Your task to perform on an android device: toggle notification dots Image 0: 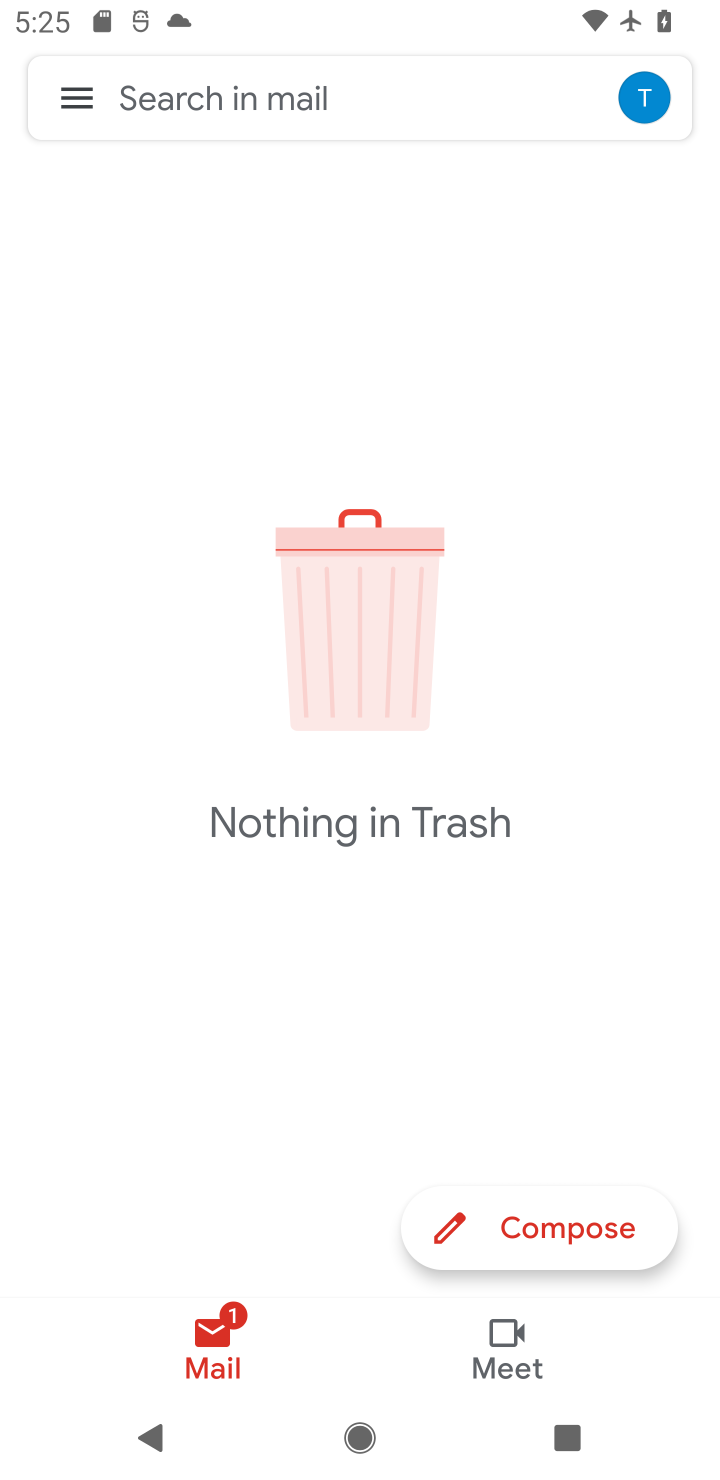
Step 0: press home button
Your task to perform on an android device: toggle notification dots Image 1: 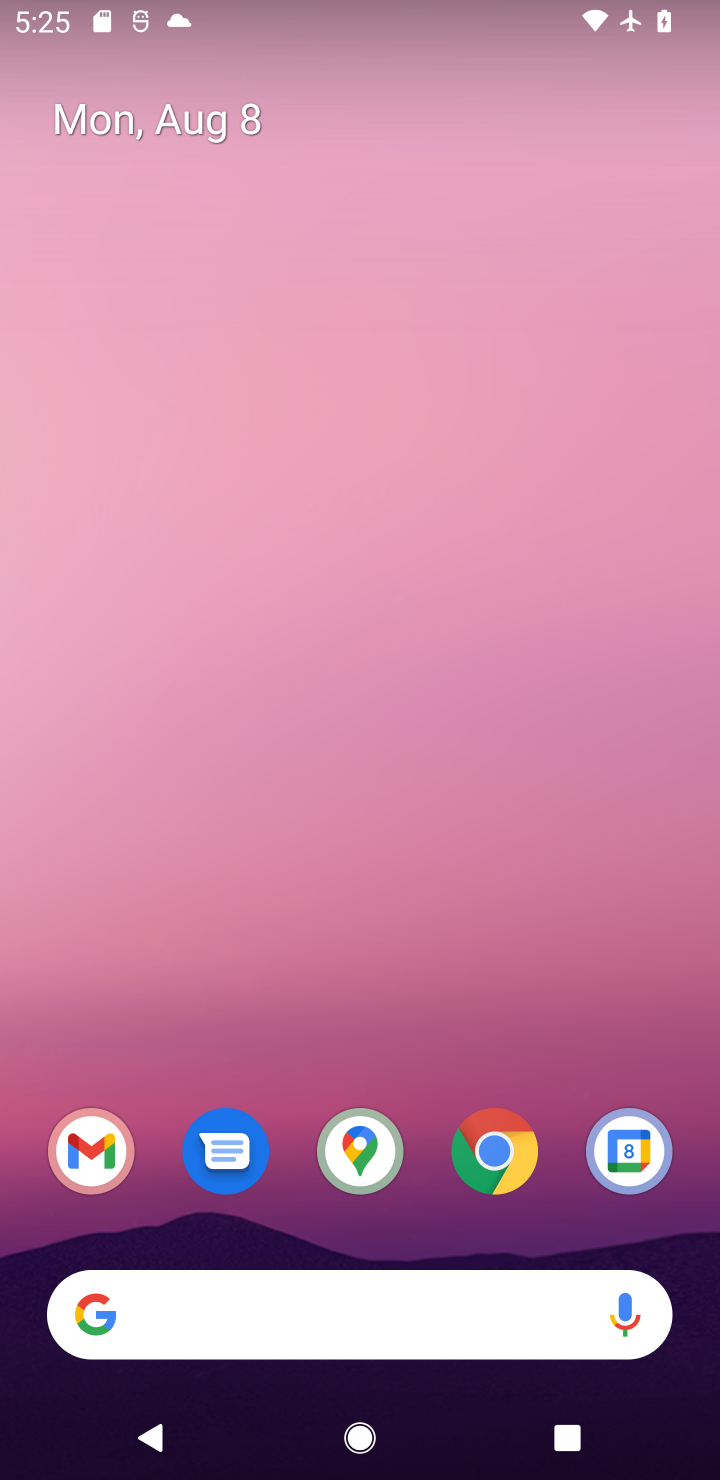
Step 1: drag from (326, 1056) to (342, 185)
Your task to perform on an android device: toggle notification dots Image 2: 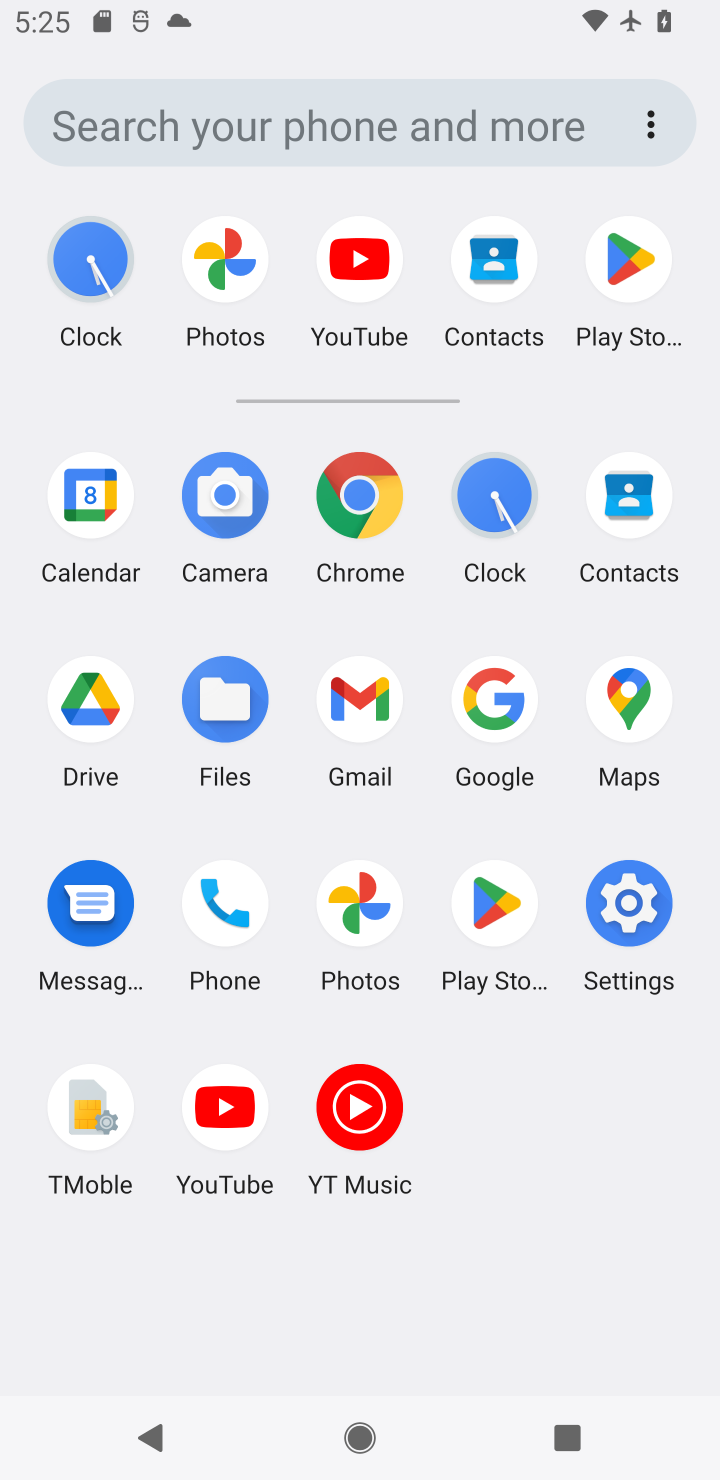
Step 2: click (602, 898)
Your task to perform on an android device: toggle notification dots Image 3: 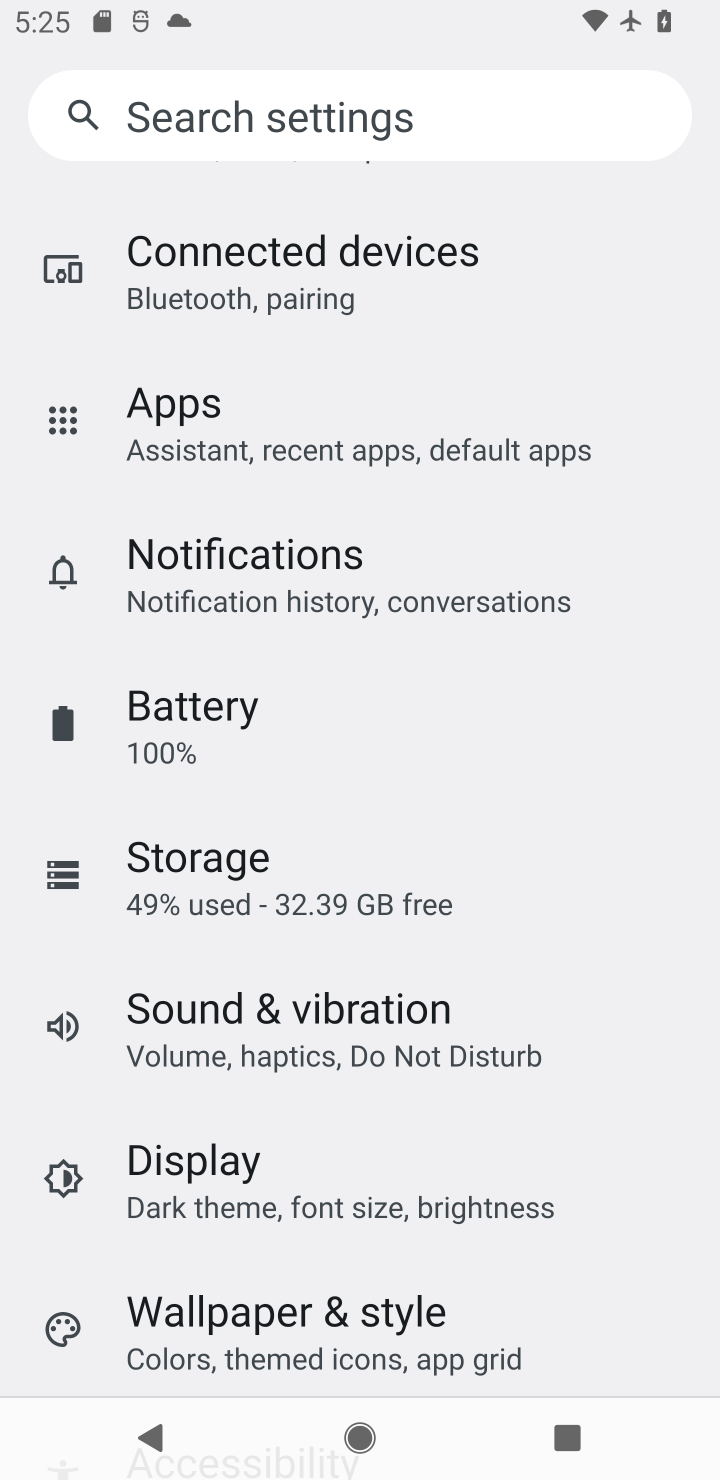
Step 3: click (252, 602)
Your task to perform on an android device: toggle notification dots Image 4: 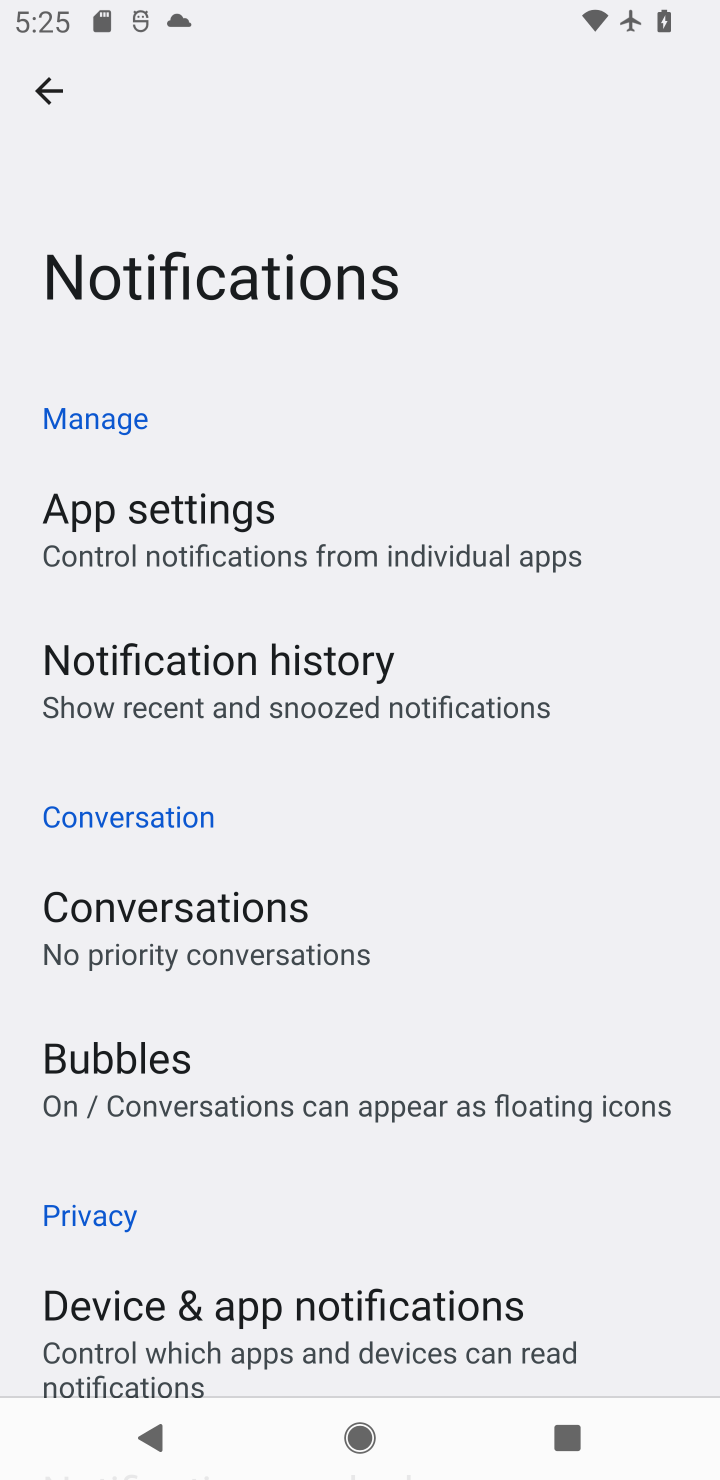
Step 4: drag from (444, 1147) to (442, 504)
Your task to perform on an android device: toggle notification dots Image 5: 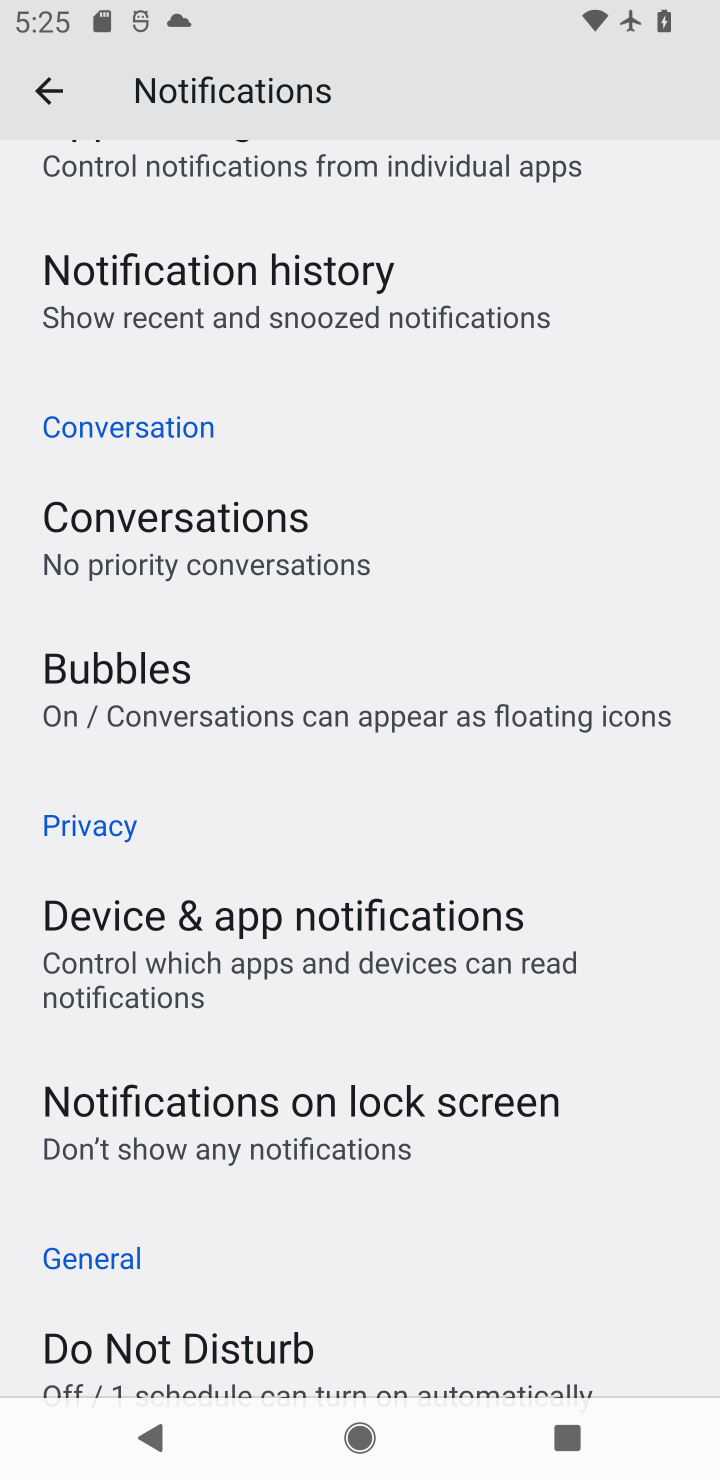
Step 5: drag from (406, 1050) to (425, 290)
Your task to perform on an android device: toggle notification dots Image 6: 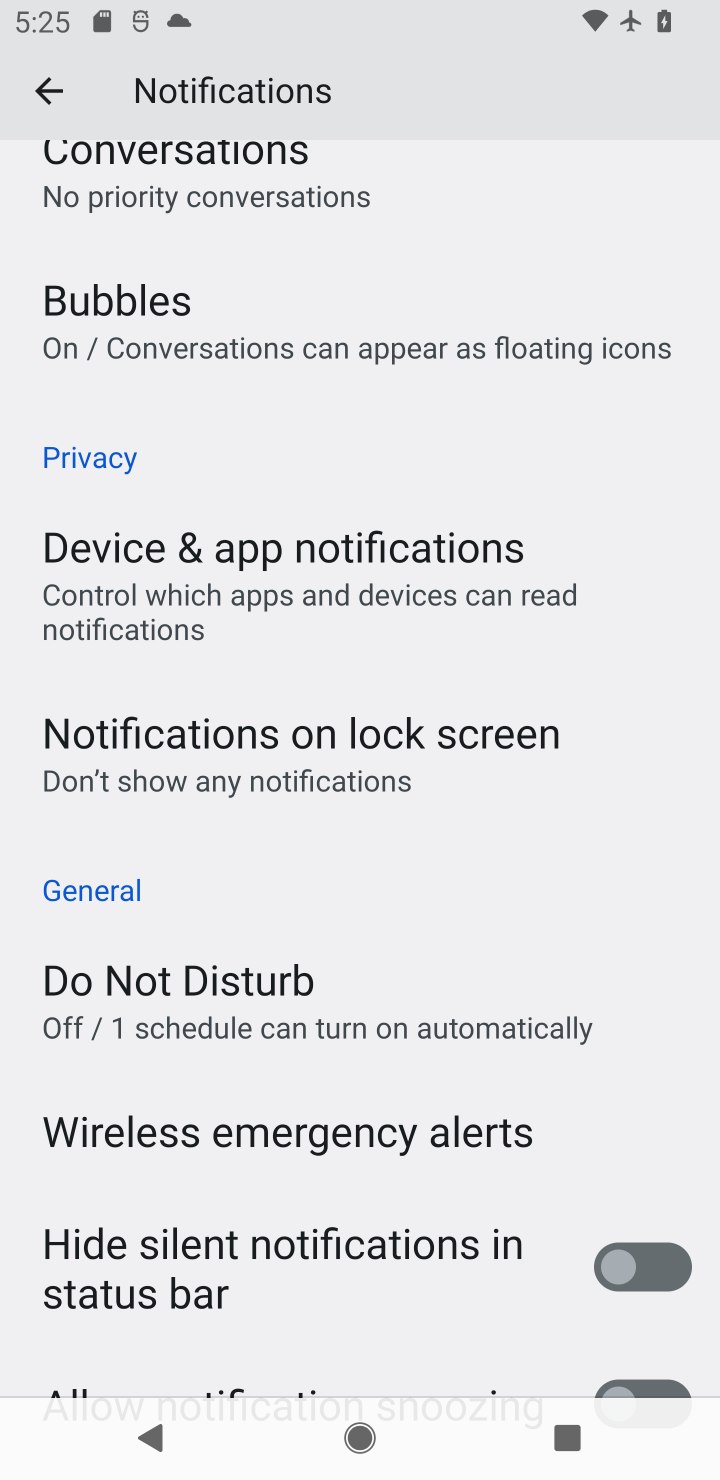
Step 6: drag from (402, 1169) to (359, 495)
Your task to perform on an android device: toggle notification dots Image 7: 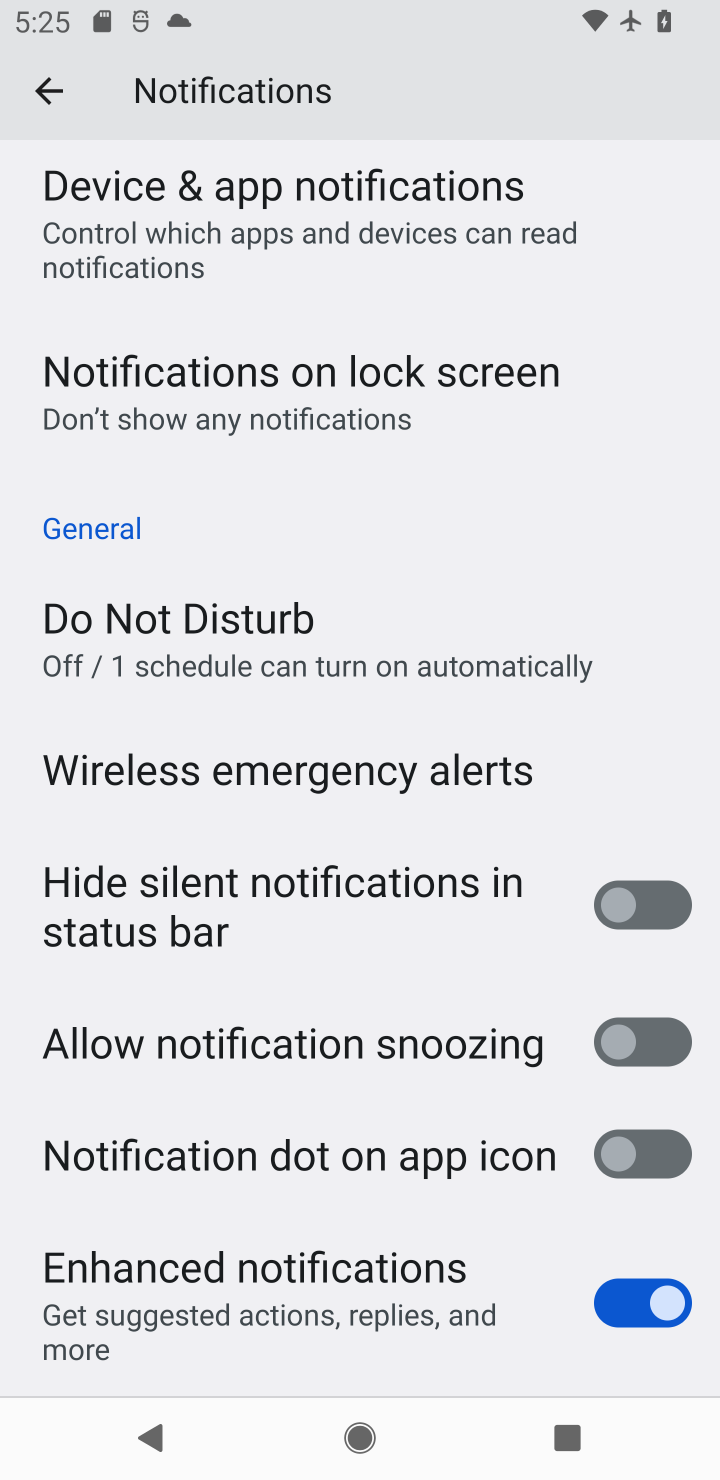
Step 7: click (649, 1157)
Your task to perform on an android device: toggle notification dots Image 8: 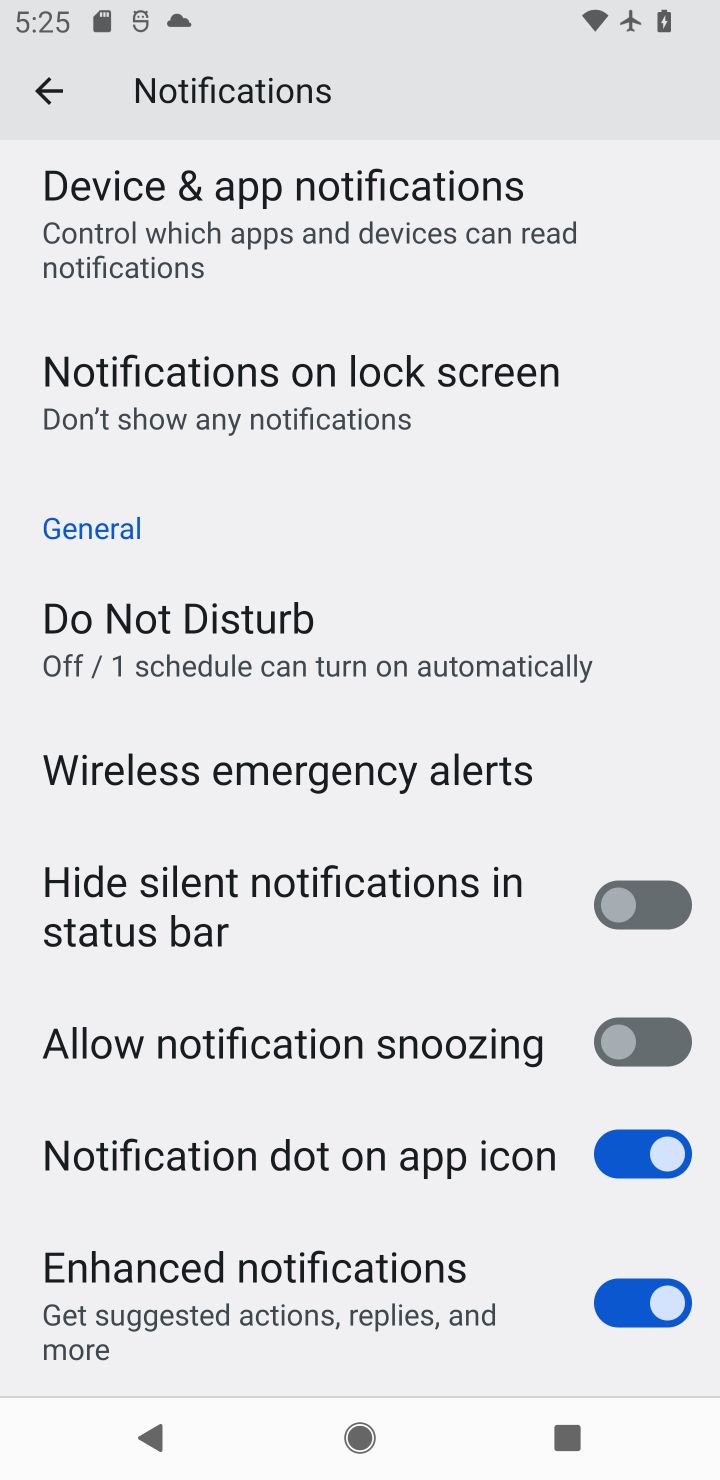
Step 8: task complete